Your task to perform on an android device: Open notification settings Image 0: 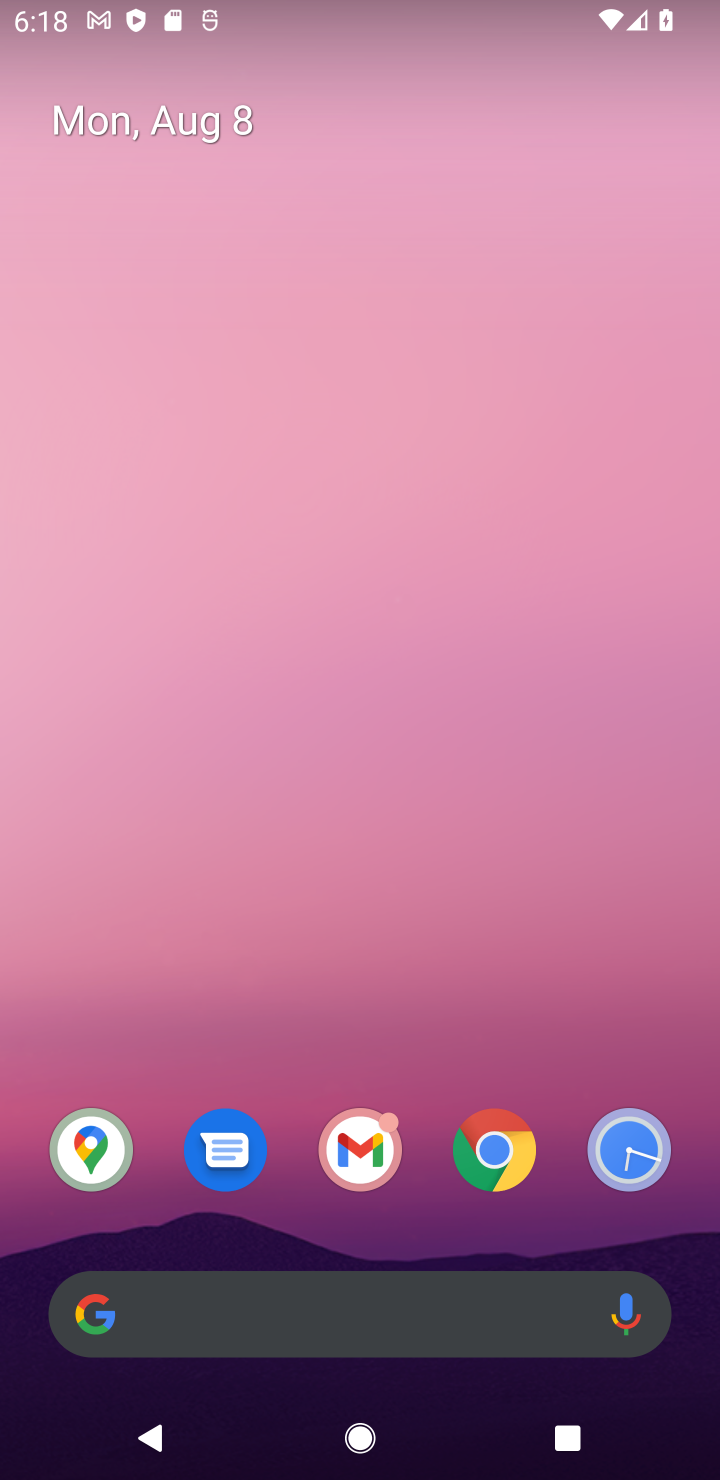
Step 0: drag from (372, 1214) to (541, 12)
Your task to perform on an android device: Open notification settings Image 1: 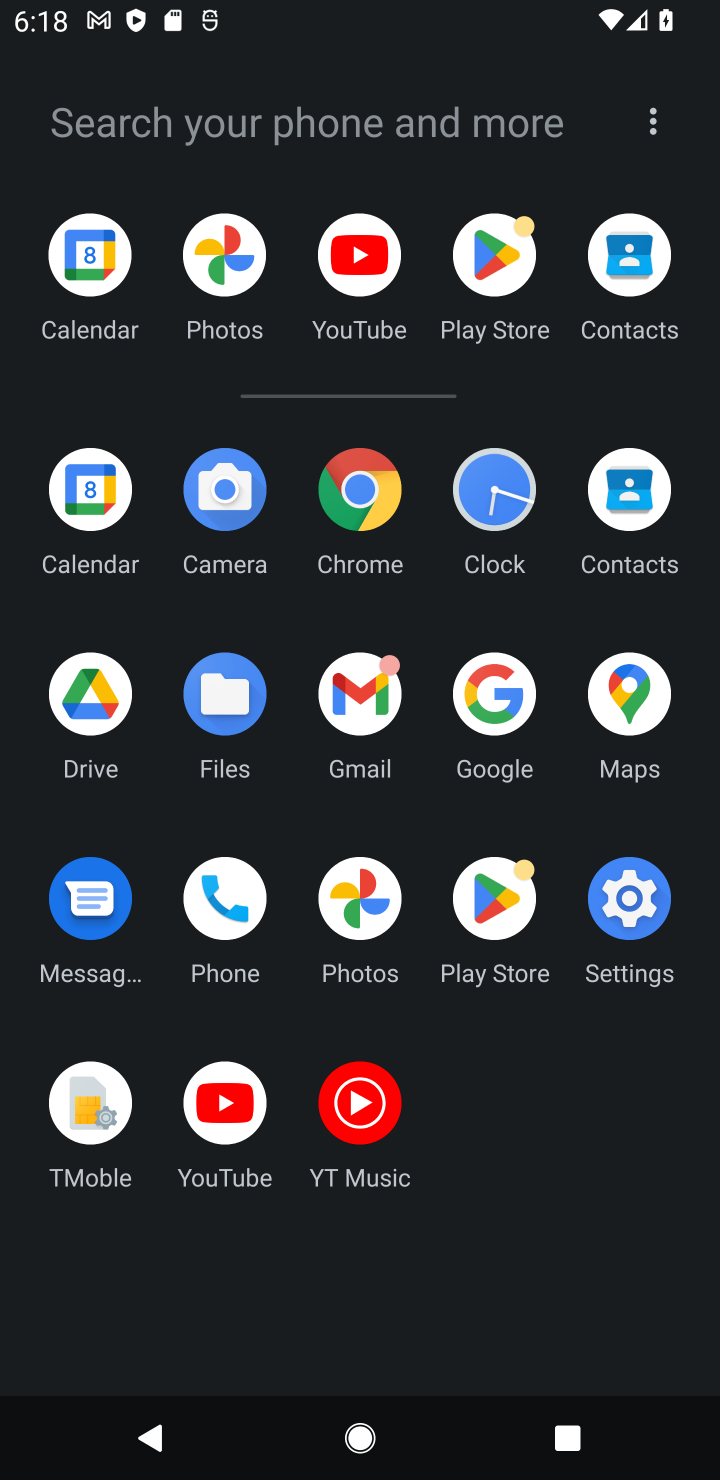
Step 1: click (666, 865)
Your task to perform on an android device: Open notification settings Image 2: 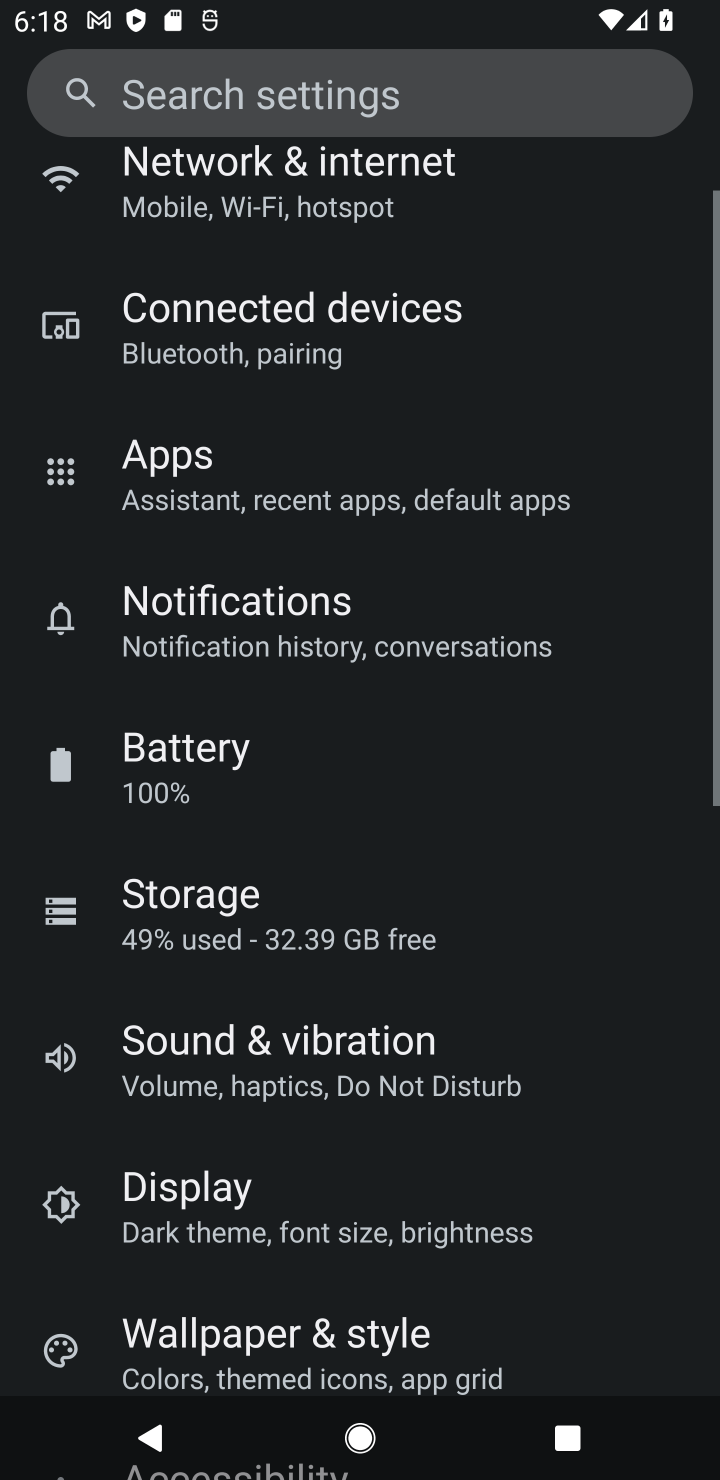
Step 2: click (645, 897)
Your task to perform on an android device: Open notification settings Image 3: 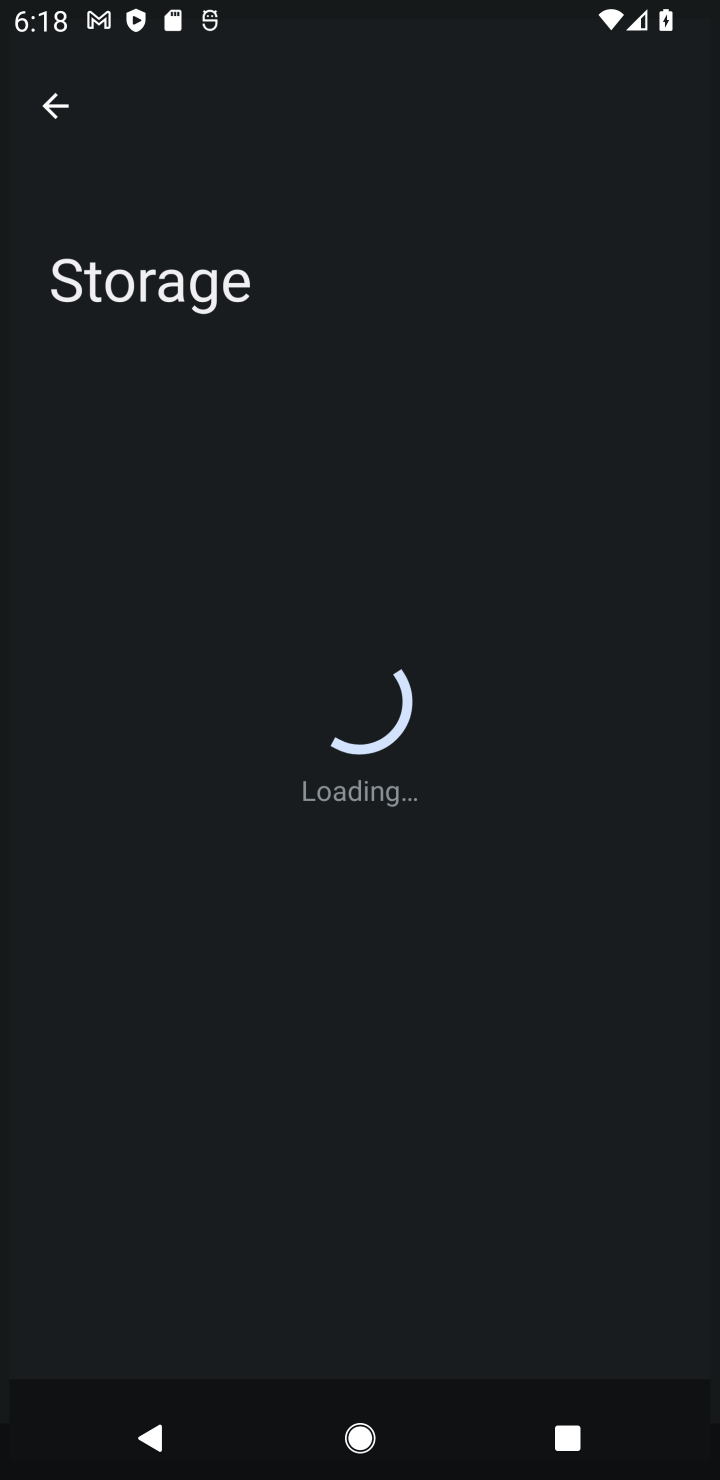
Step 3: click (329, 588)
Your task to perform on an android device: Open notification settings Image 4: 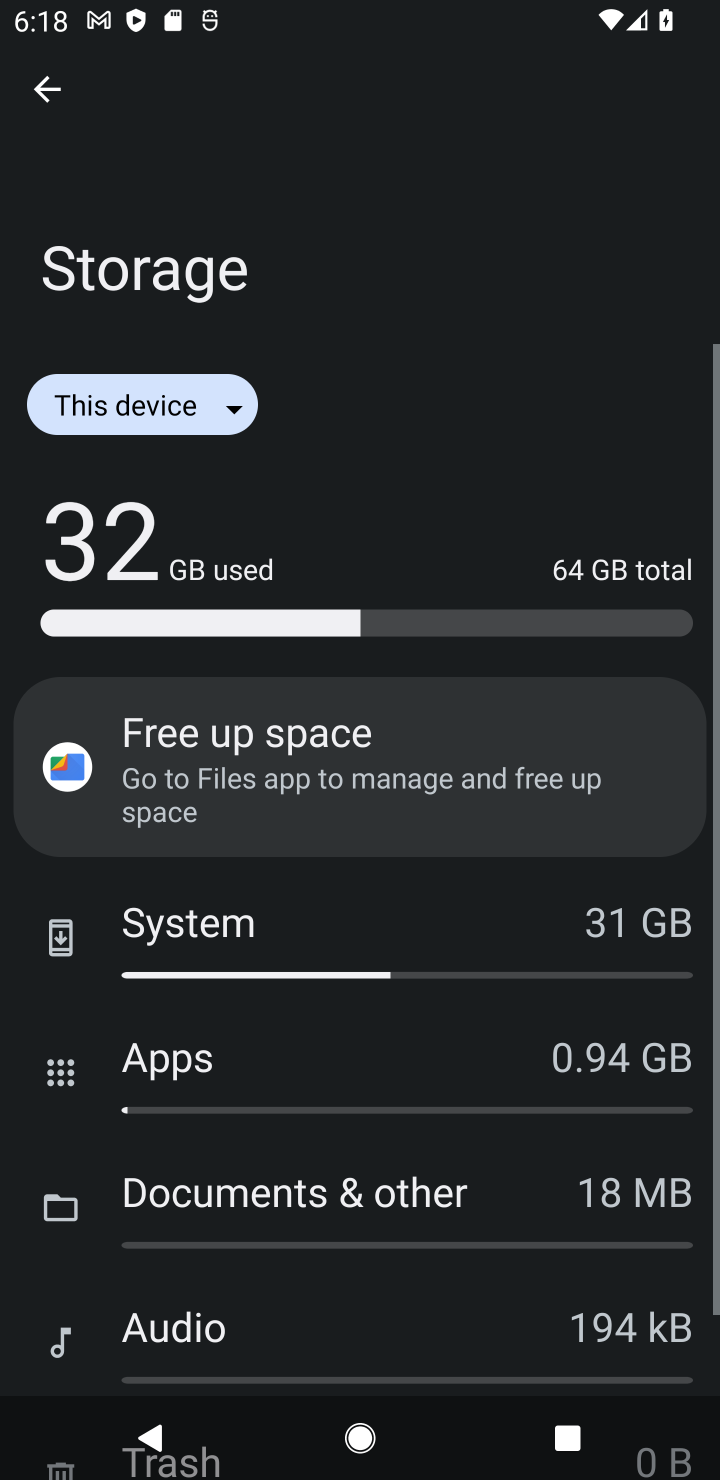
Step 4: task complete